Your task to perform on an android device: Check the news Image 0: 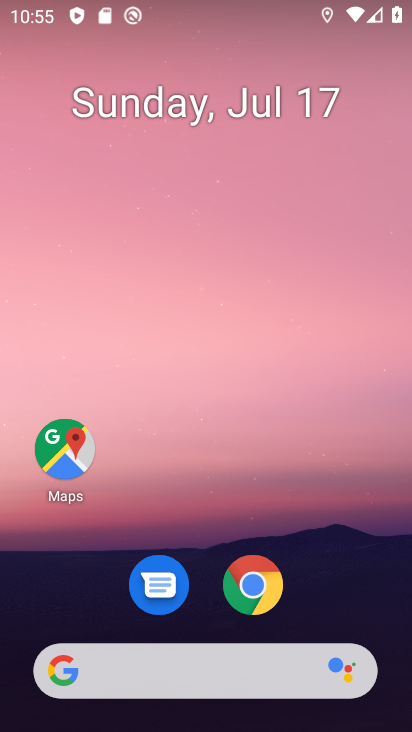
Step 0: click (242, 674)
Your task to perform on an android device: Check the news Image 1: 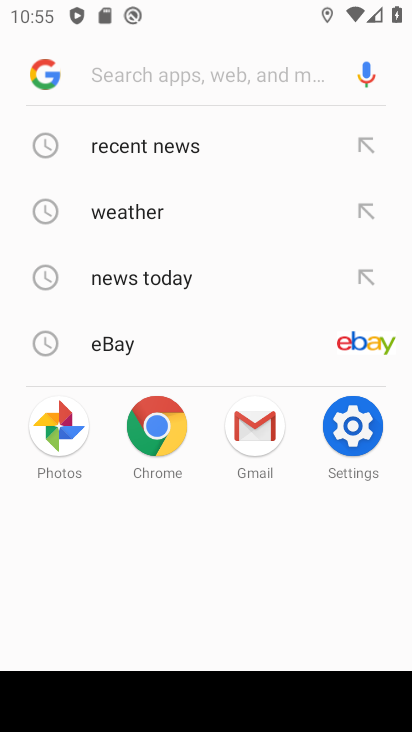
Step 1: click (156, 147)
Your task to perform on an android device: Check the news Image 2: 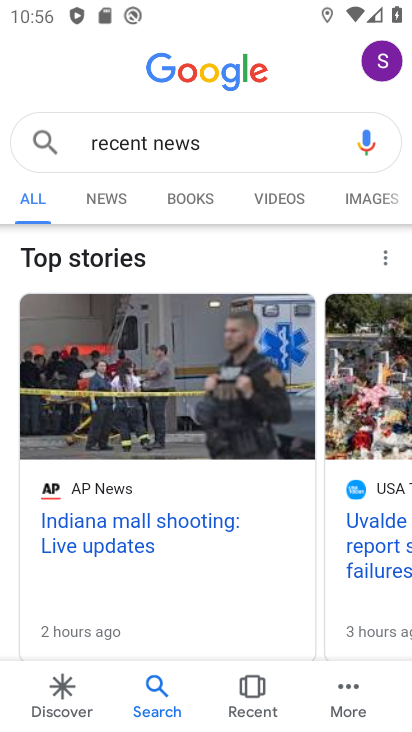
Step 2: task complete